Your task to perform on an android device: change the clock style Image 0: 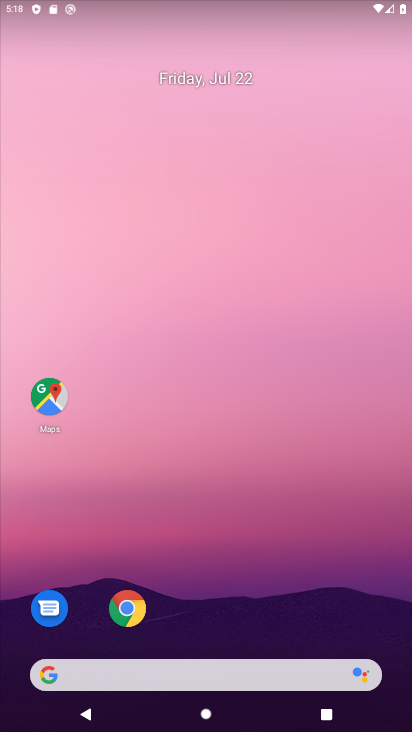
Step 0: drag from (206, 615) to (192, 35)
Your task to perform on an android device: change the clock style Image 1: 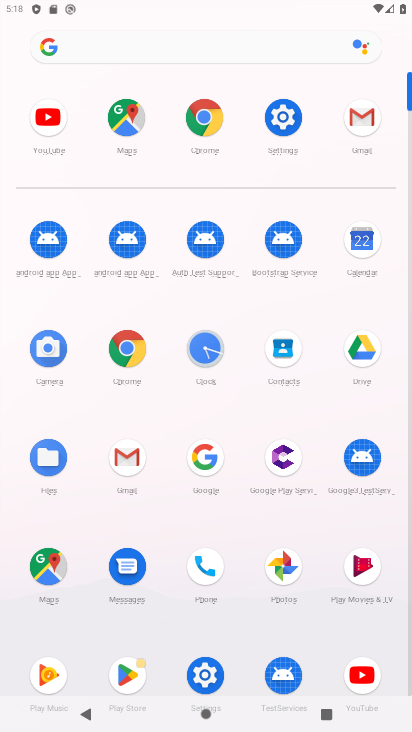
Step 1: click (204, 350)
Your task to perform on an android device: change the clock style Image 2: 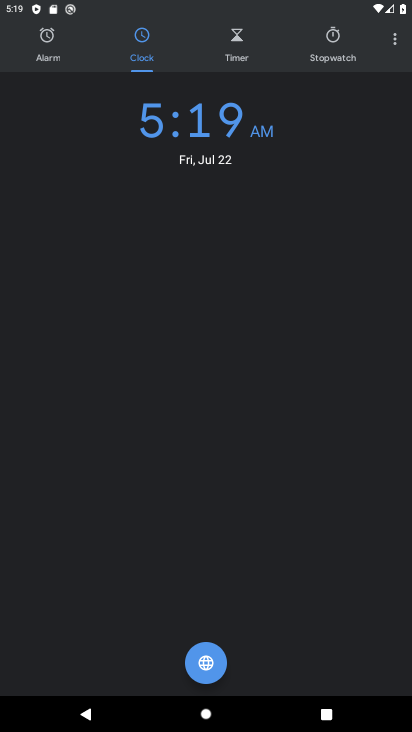
Step 2: click (402, 38)
Your task to perform on an android device: change the clock style Image 3: 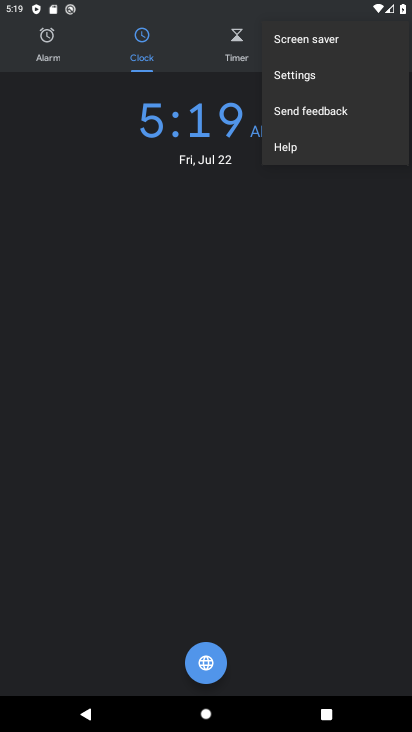
Step 3: click (337, 75)
Your task to perform on an android device: change the clock style Image 4: 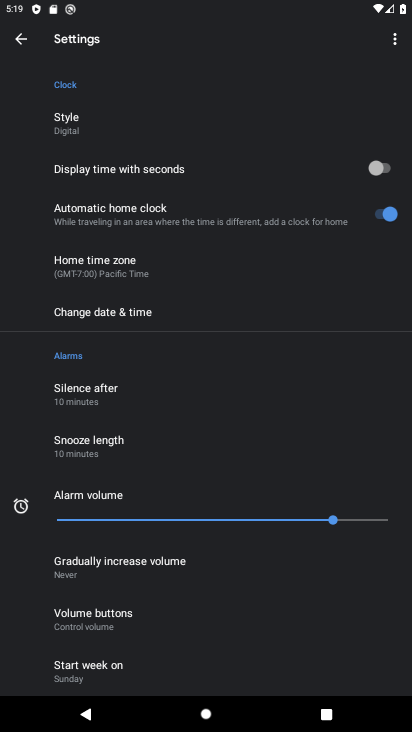
Step 4: click (140, 120)
Your task to perform on an android device: change the clock style Image 5: 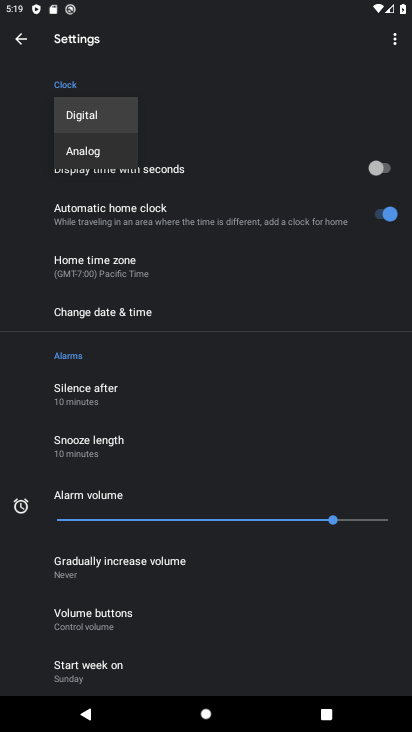
Step 5: click (95, 157)
Your task to perform on an android device: change the clock style Image 6: 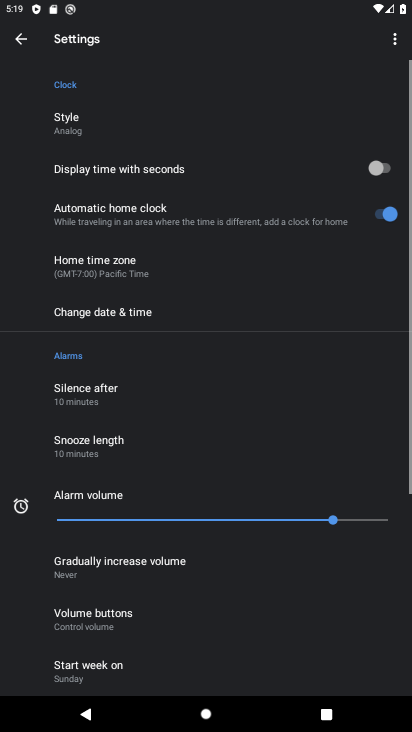
Step 6: task complete